Your task to perform on an android device: Open Wikipedia Image 0: 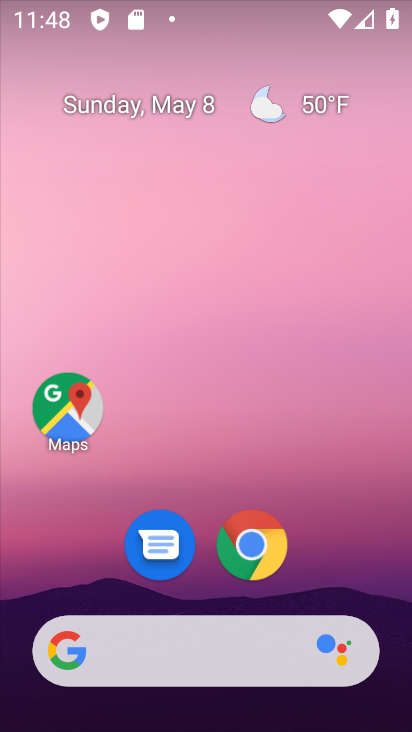
Step 0: click (234, 565)
Your task to perform on an android device: Open Wikipedia Image 1: 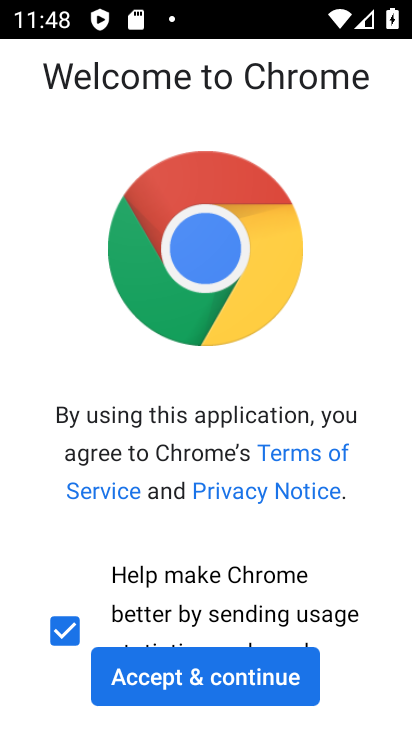
Step 1: click (183, 652)
Your task to perform on an android device: Open Wikipedia Image 2: 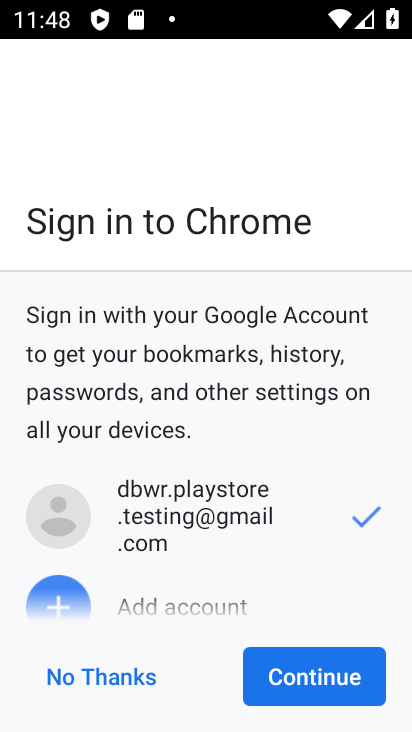
Step 2: click (277, 683)
Your task to perform on an android device: Open Wikipedia Image 3: 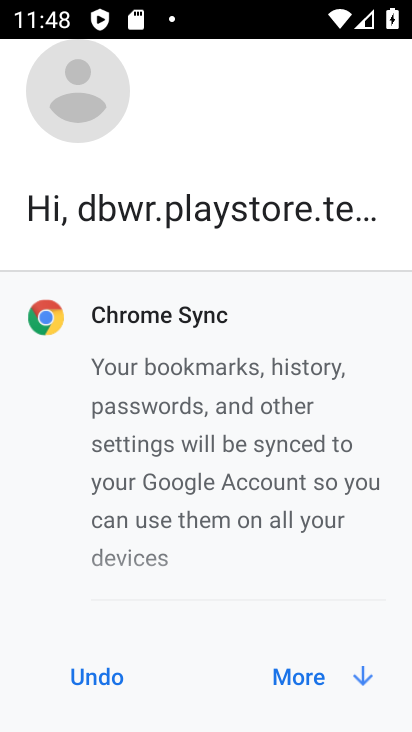
Step 3: click (313, 662)
Your task to perform on an android device: Open Wikipedia Image 4: 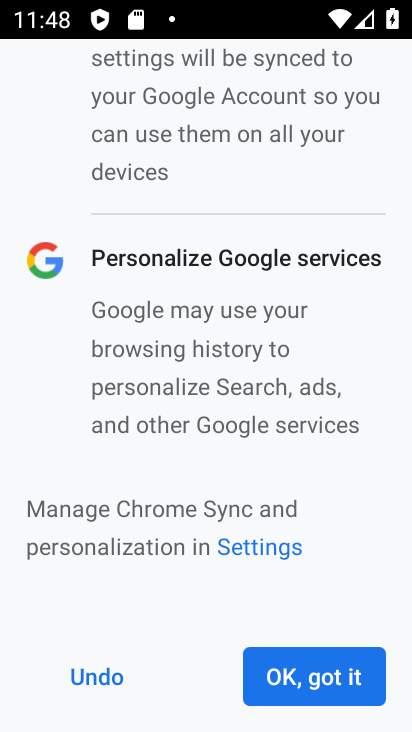
Step 4: click (313, 662)
Your task to perform on an android device: Open Wikipedia Image 5: 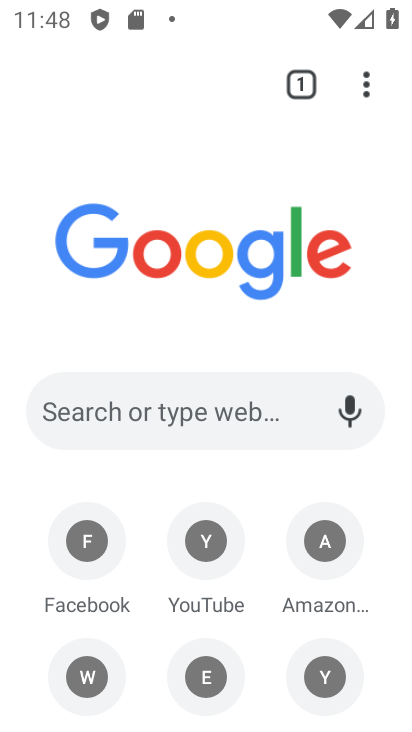
Step 5: click (113, 94)
Your task to perform on an android device: Open Wikipedia Image 6: 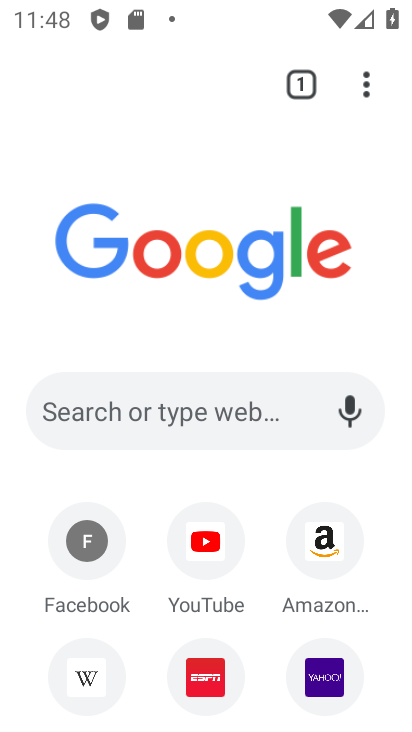
Step 6: click (169, 406)
Your task to perform on an android device: Open Wikipedia Image 7: 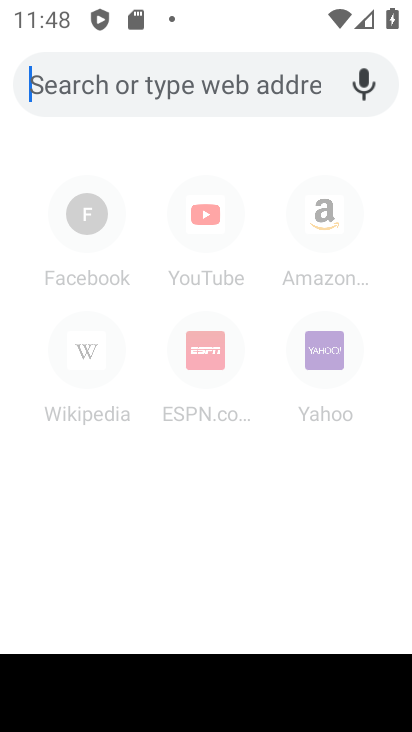
Step 7: type "Wikipedia"
Your task to perform on an android device: Open Wikipedia Image 8: 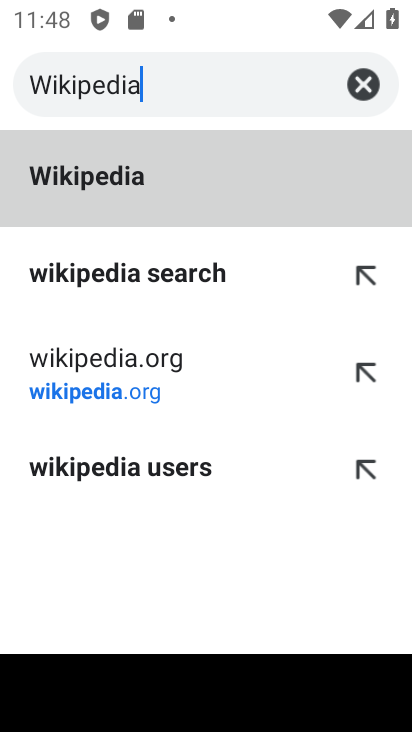
Step 8: click (178, 177)
Your task to perform on an android device: Open Wikipedia Image 9: 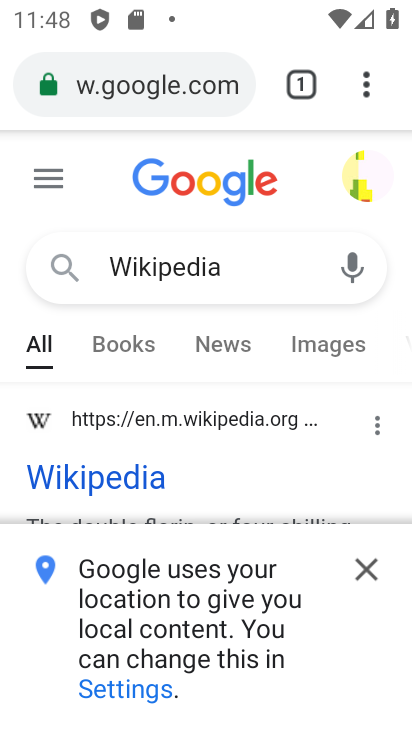
Step 9: click (32, 469)
Your task to perform on an android device: Open Wikipedia Image 10: 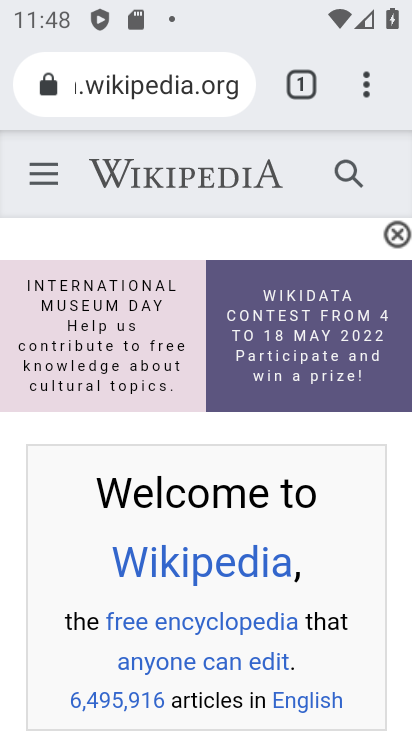
Step 10: task complete